Your task to perform on an android device: Search for vegetarian restaurants on Maps Image 0: 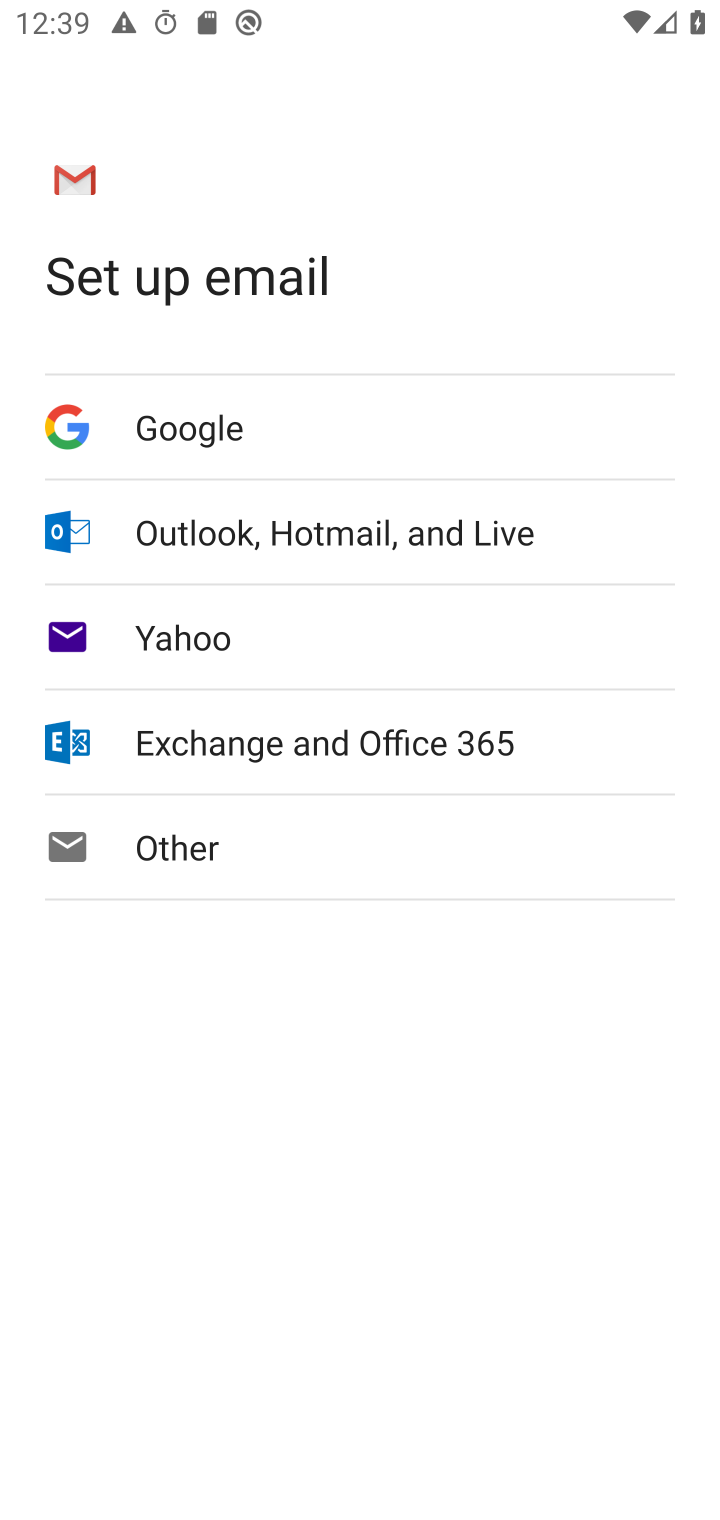
Step 0: press home button
Your task to perform on an android device: Search for vegetarian restaurants on Maps Image 1: 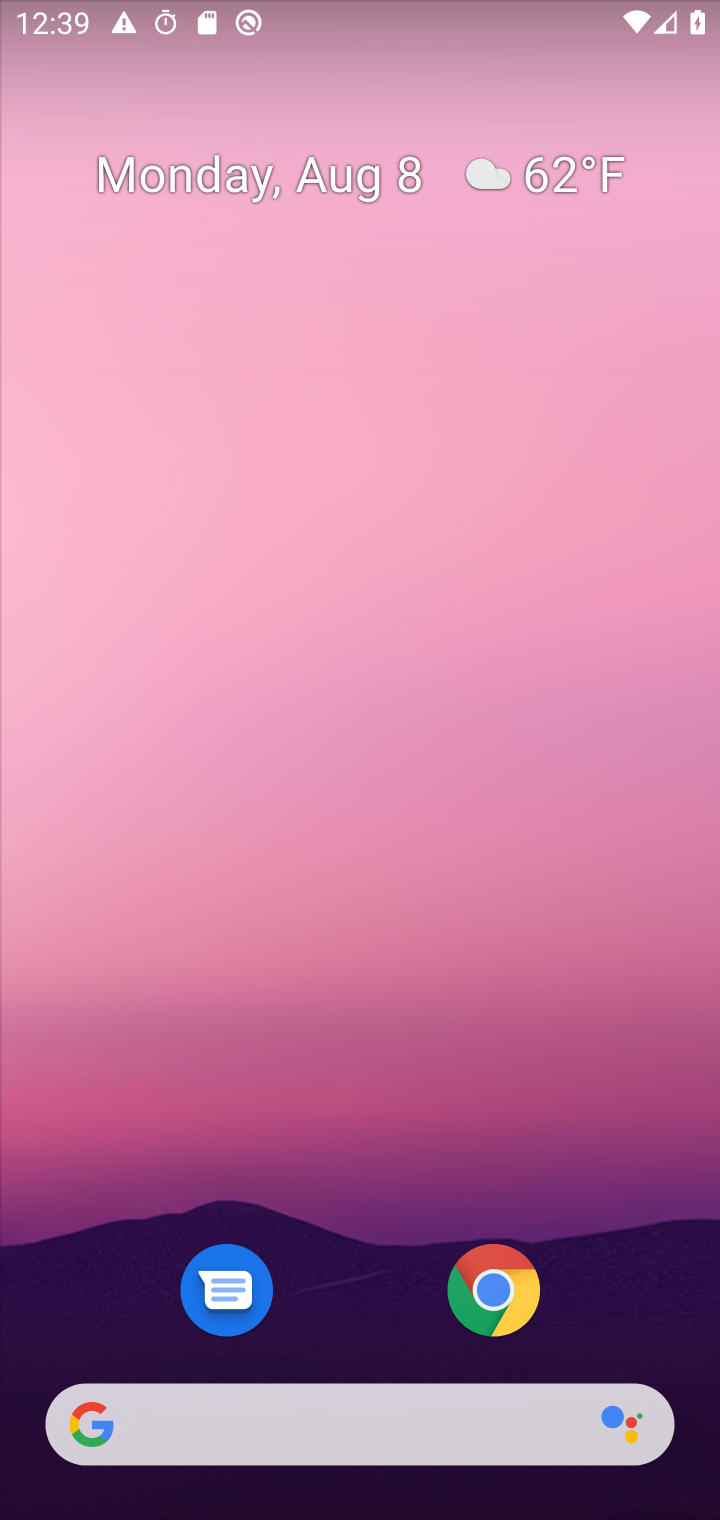
Step 1: drag from (300, 1349) to (171, 15)
Your task to perform on an android device: Search for vegetarian restaurants on Maps Image 2: 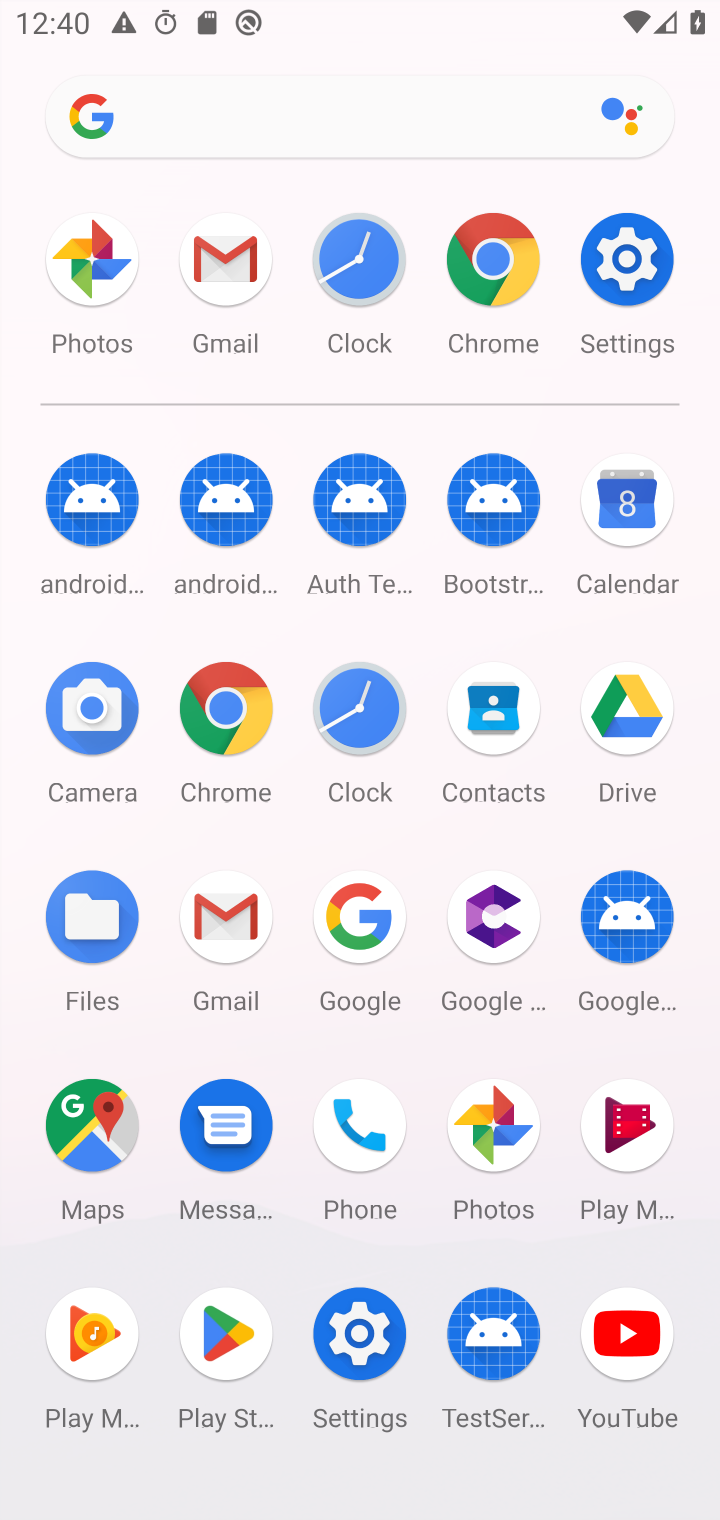
Step 2: click (93, 1138)
Your task to perform on an android device: Search for vegetarian restaurants on Maps Image 3: 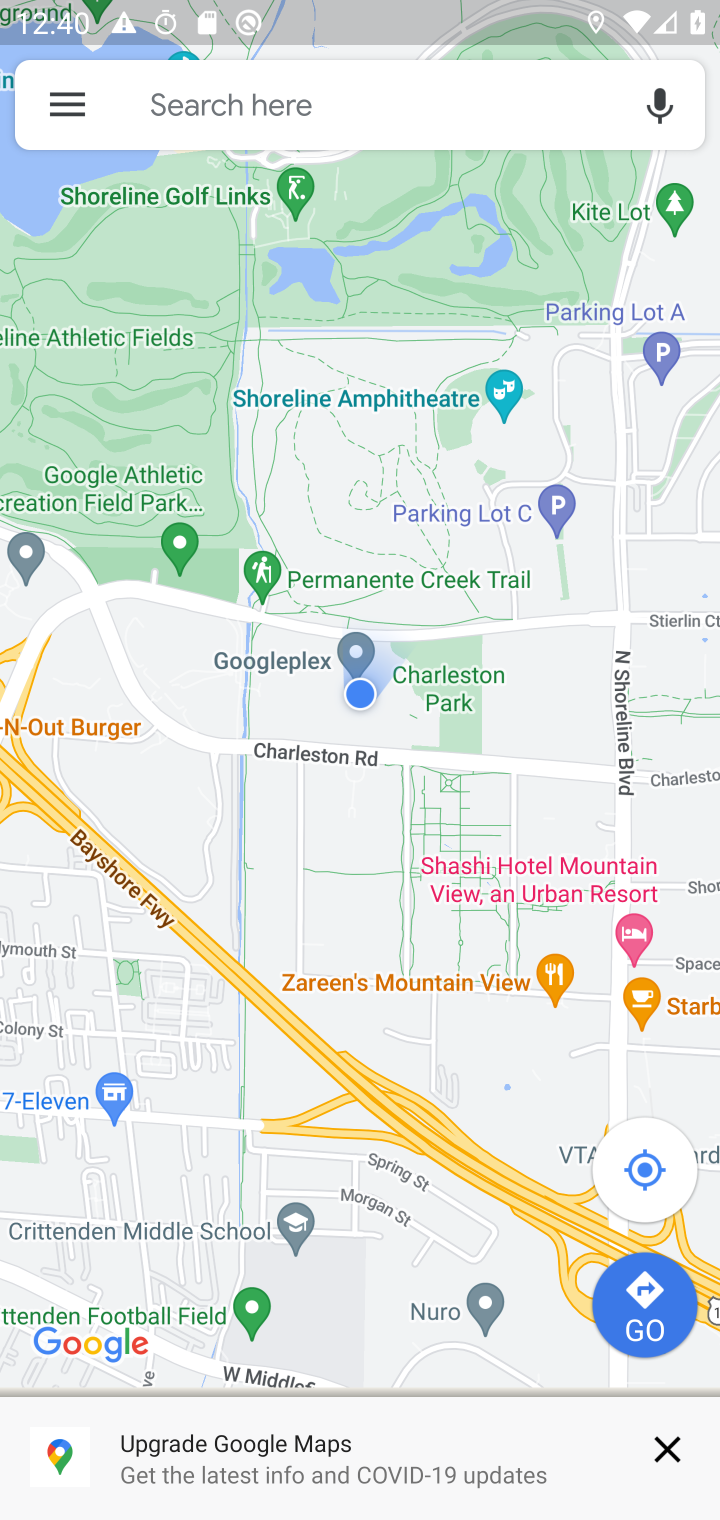
Step 3: click (247, 106)
Your task to perform on an android device: Search for vegetarian restaurants on Maps Image 4: 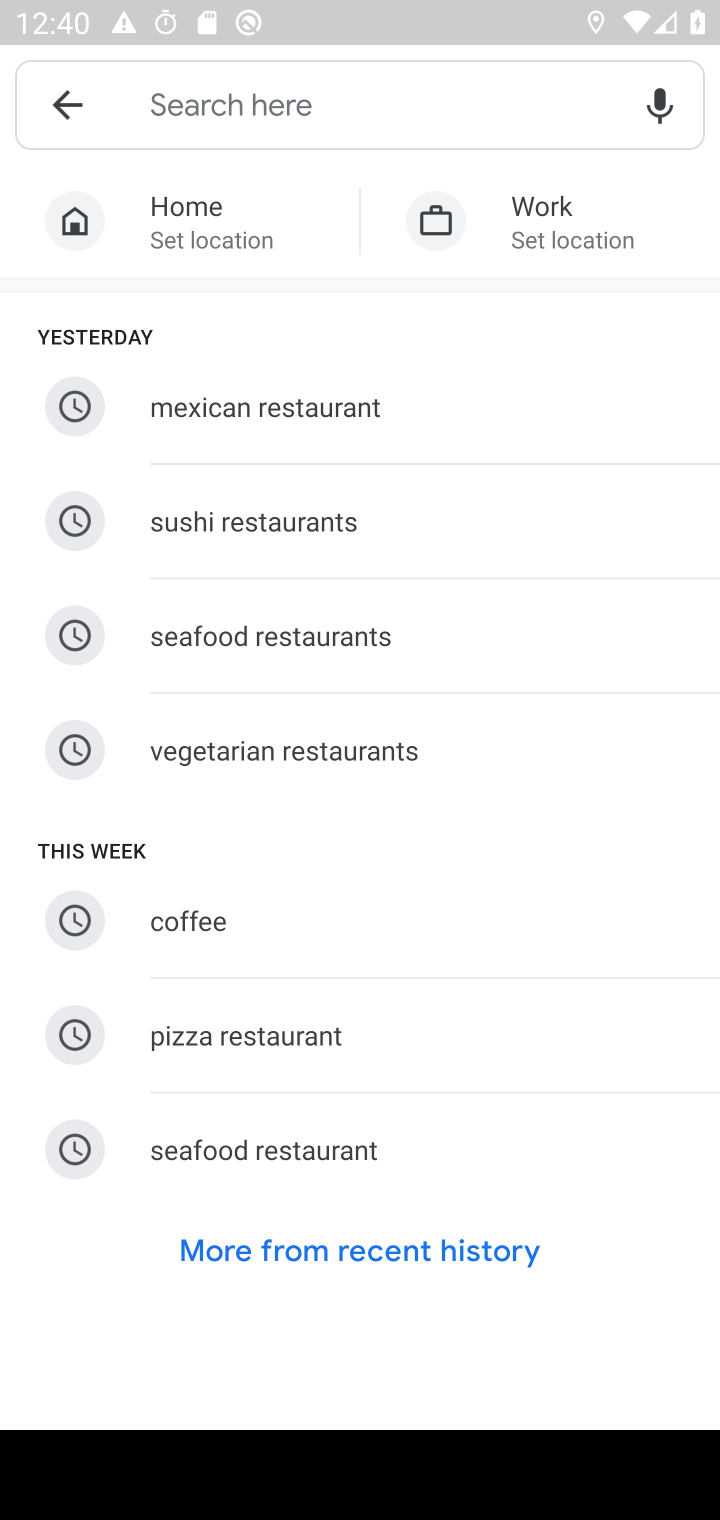
Step 4: type "vegetarian restaurants"
Your task to perform on an android device: Search for vegetarian restaurants on Maps Image 5: 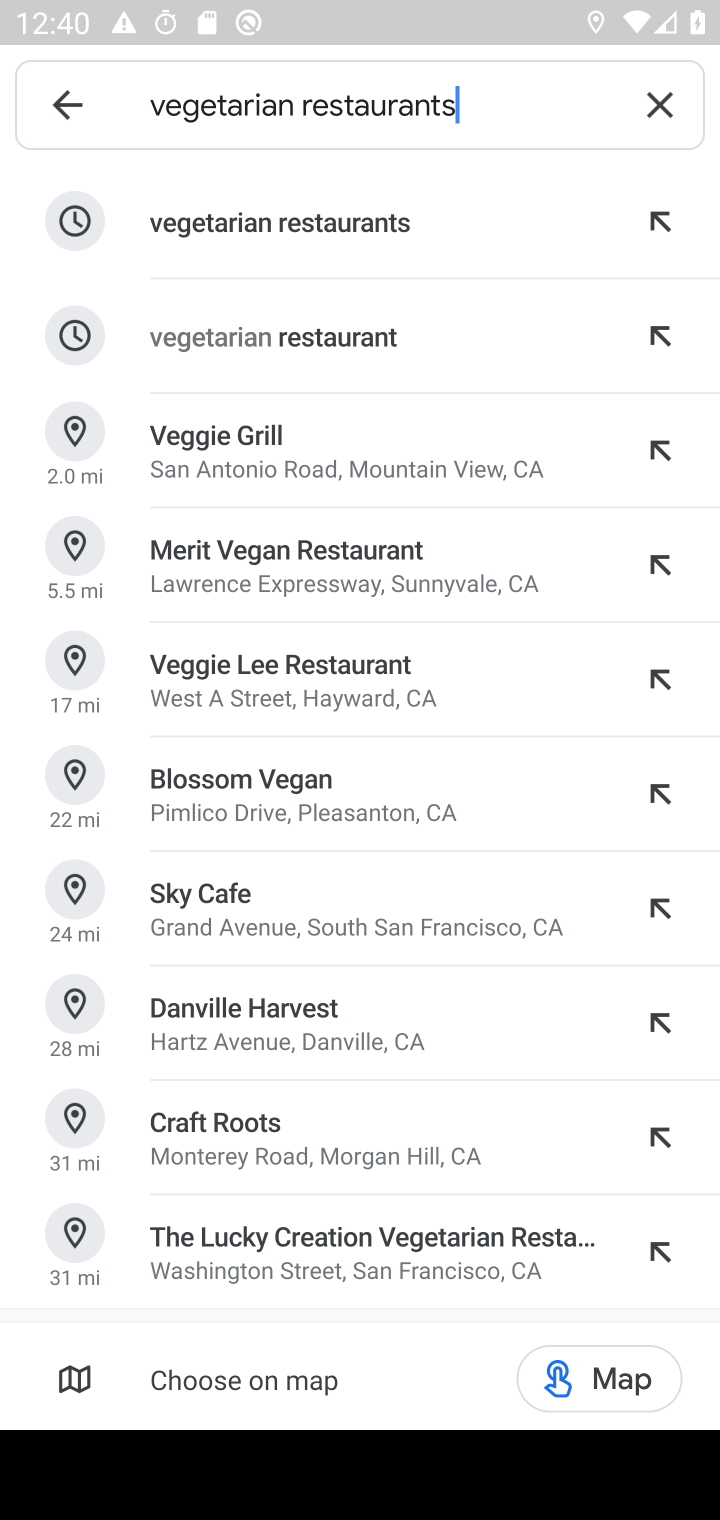
Step 5: click (279, 233)
Your task to perform on an android device: Search for vegetarian restaurants on Maps Image 6: 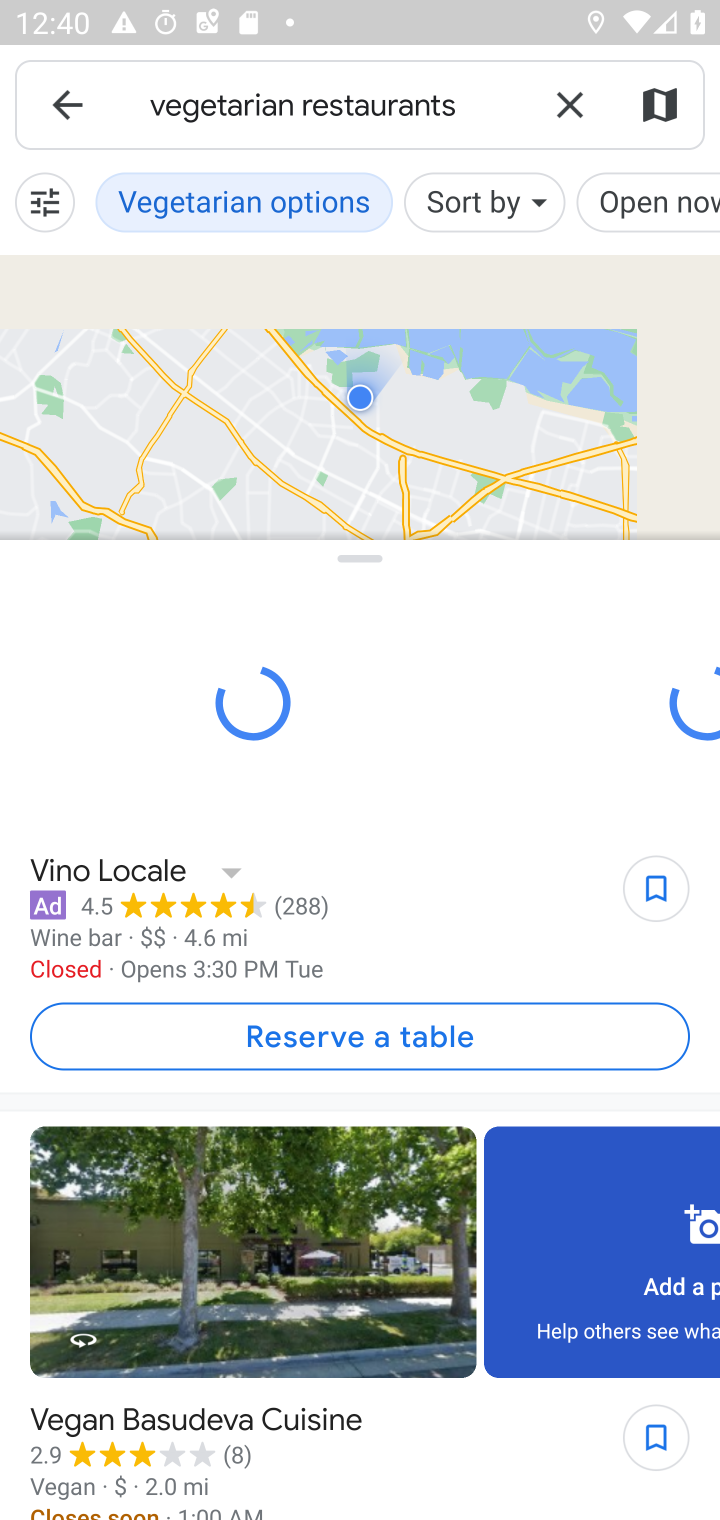
Step 6: task complete